Your task to perform on an android device: Go to Reddit.com Image 0: 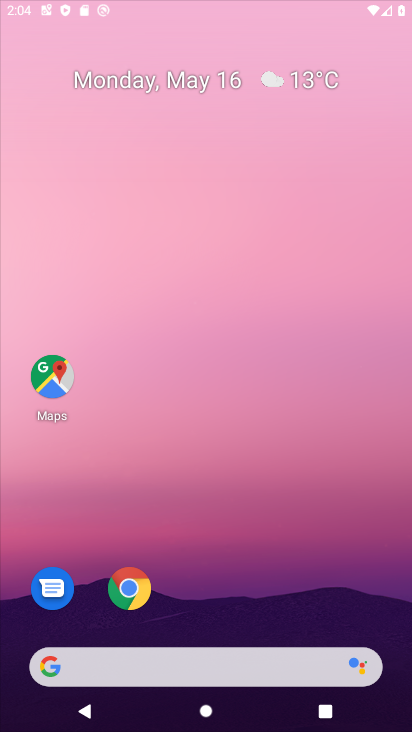
Step 0: click (256, 75)
Your task to perform on an android device: Go to Reddit.com Image 1: 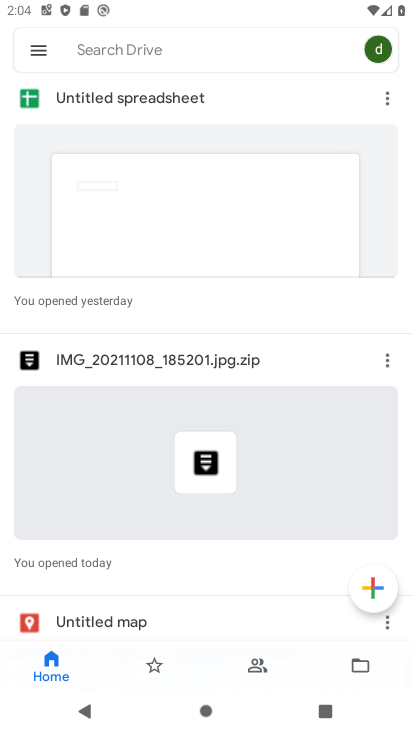
Step 1: press back button
Your task to perform on an android device: Go to Reddit.com Image 2: 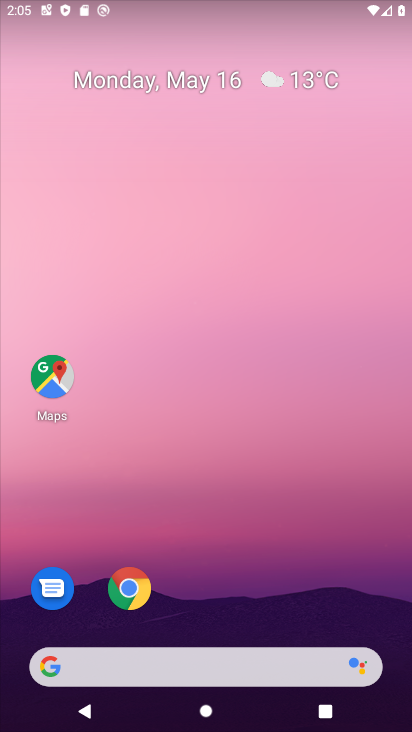
Step 2: drag from (207, 650) to (256, 129)
Your task to perform on an android device: Go to Reddit.com Image 3: 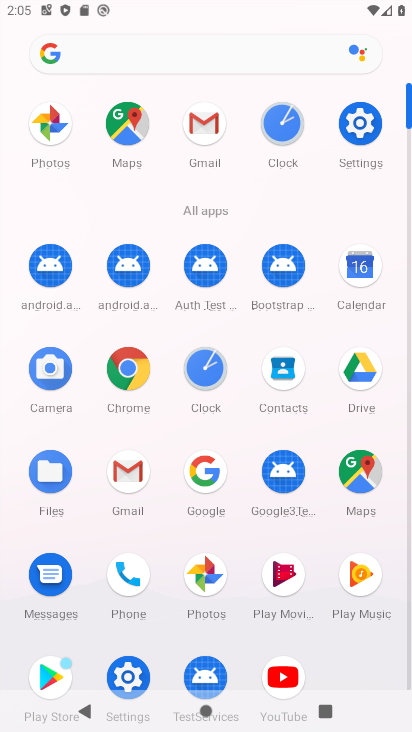
Step 3: click (134, 368)
Your task to perform on an android device: Go to Reddit.com Image 4: 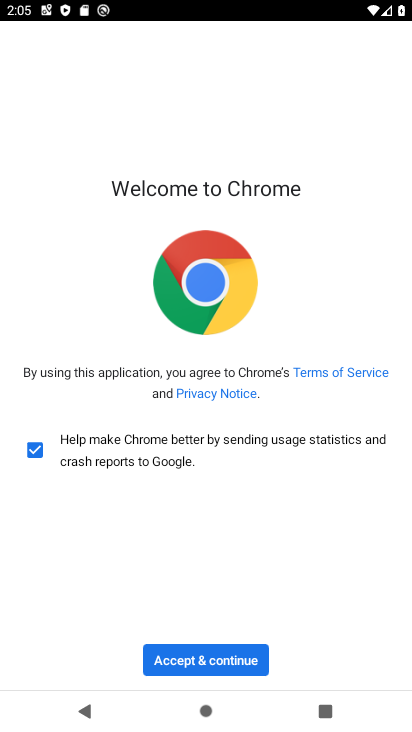
Step 4: click (206, 658)
Your task to perform on an android device: Go to Reddit.com Image 5: 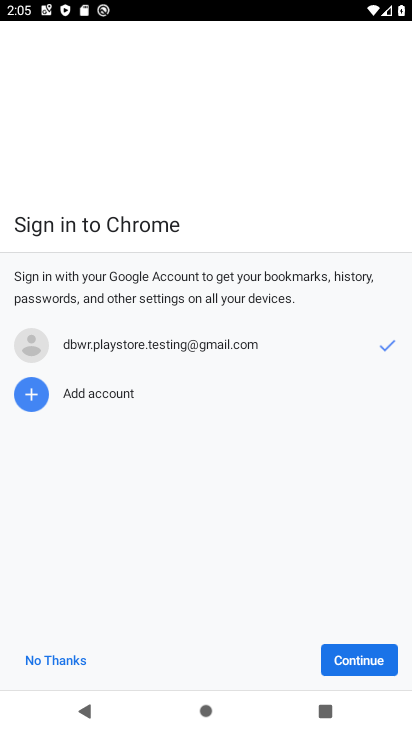
Step 5: click (57, 658)
Your task to perform on an android device: Go to Reddit.com Image 6: 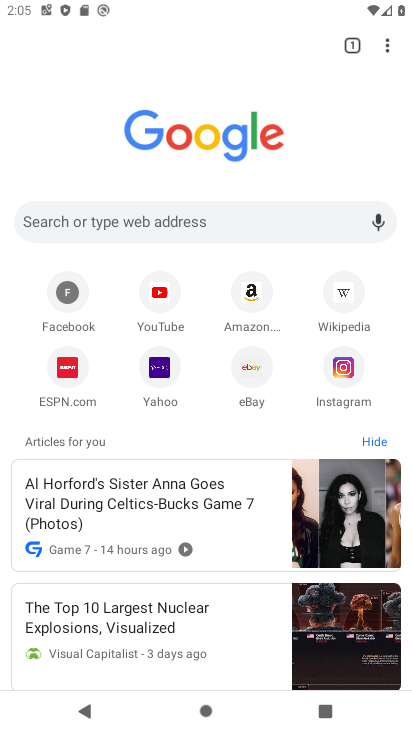
Step 6: click (255, 225)
Your task to perform on an android device: Go to Reddit.com Image 7: 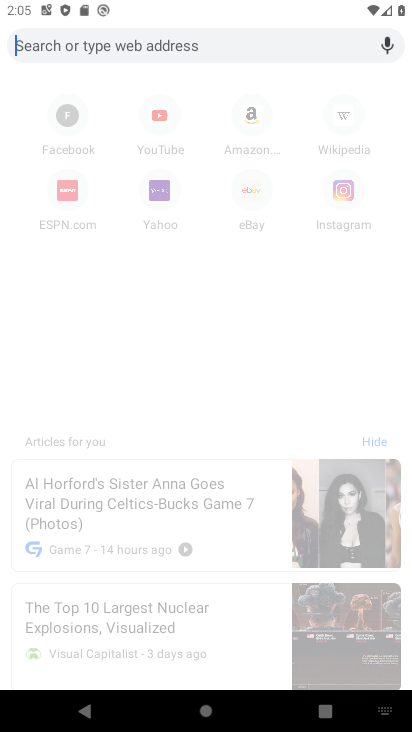
Step 7: type "reddit.com"
Your task to perform on an android device: Go to Reddit.com Image 8: 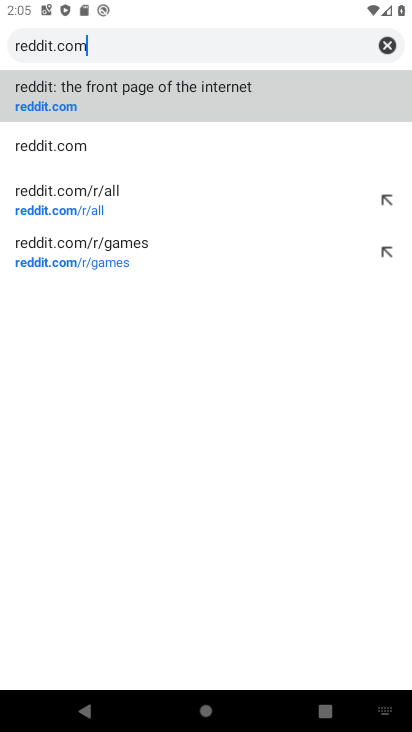
Step 8: click (148, 105)
Your task to perform on an android device: Go to Reddit.com Image 9: 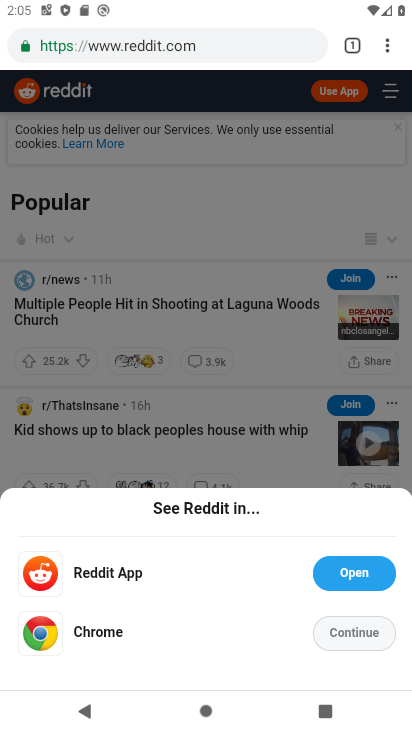
Step 9: task complete